Your task to perform on an android device: Open CNN.com Image 0: 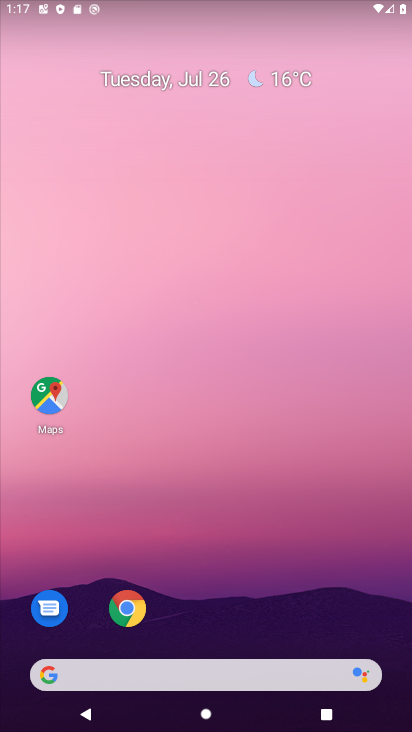
Step 0: click (269, 674)
Your task to perform on an android device: Open CNN.com Image 1: 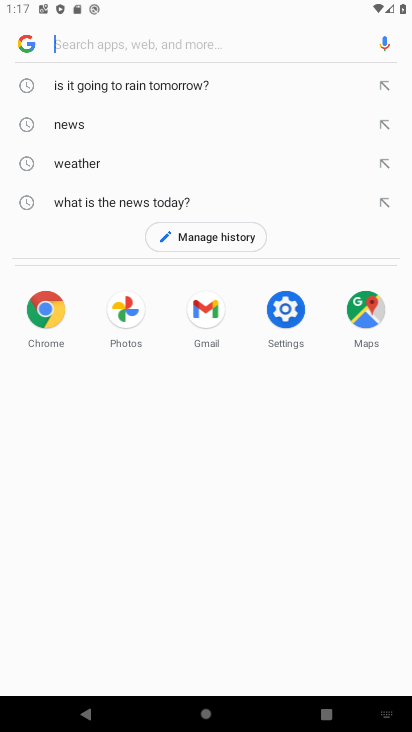
Step 1: type "cnn"
Your task to perform on an android device: Open CNN.com Image 2: 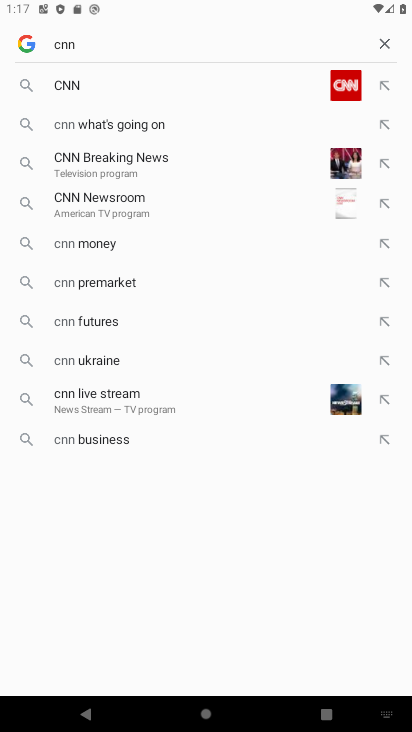
Step 2: click (143, 81)
Your task to perform on an android device: Open CNN.com Image 3: 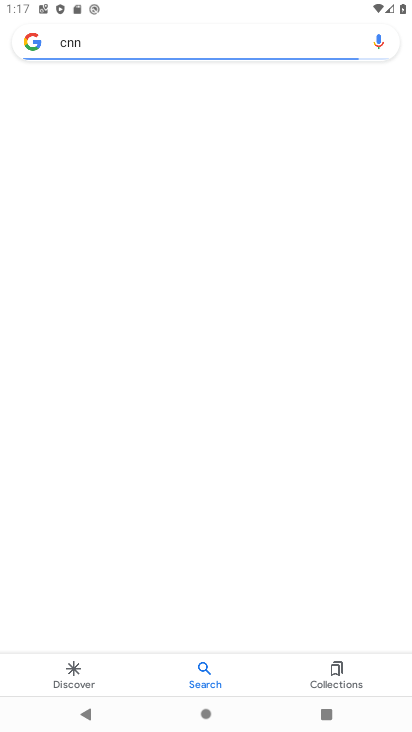
Step 3: task complete